Your task to perform on an android device: Go to display settings Image 0: 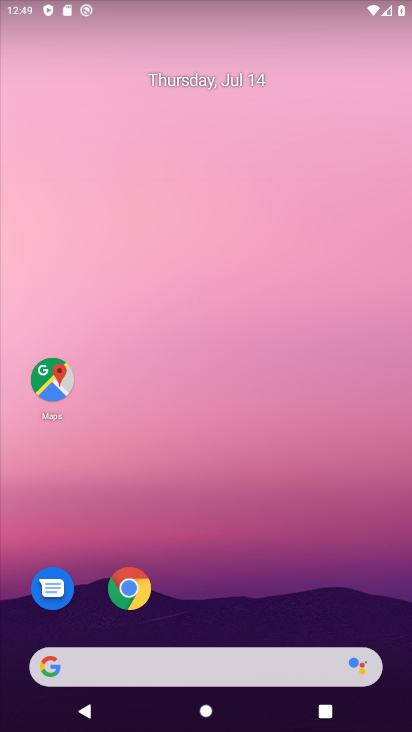
Step 0: drag from (286, 681) to (387, 29)
Your task to perform on an android device: Go to display settings Image 1: 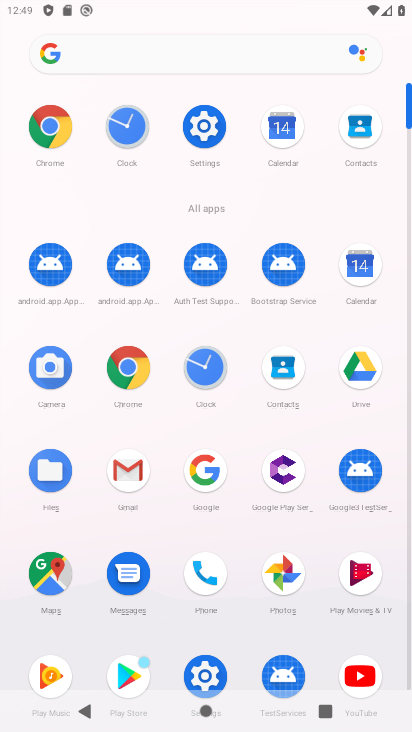
Step 1: click (206, 121)
Your task to perform on an android device: Go to display settings Image 2: 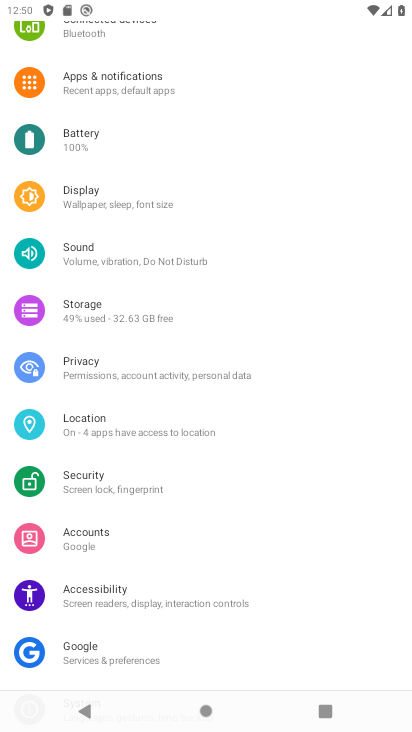
Step 2: click (131, 202)
Your task to perform on an android device: Go to display settings Image 3: 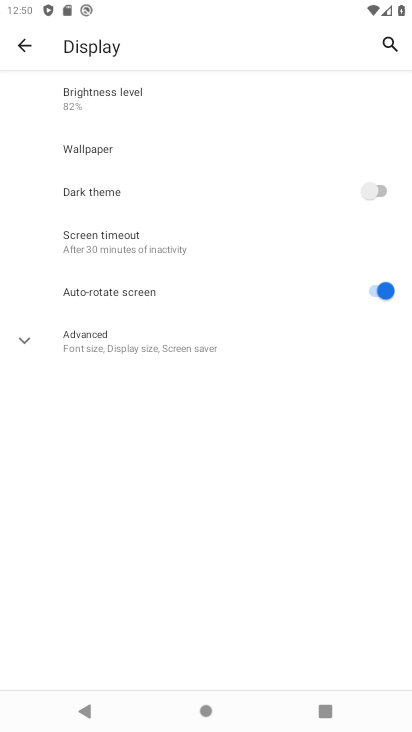
Step 3: task complete